Your task to perform on an android device: Go to internet settings Image 0: 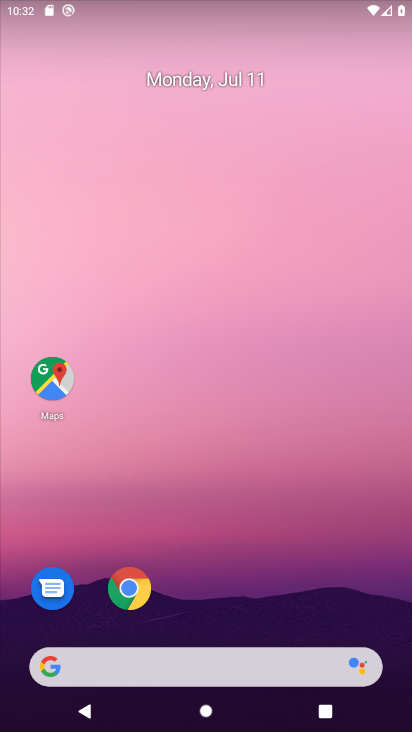
Step 0: drag from (274, 614) to (244, 185)
Your task to perform on an android device: Go to internet settings Image 1: 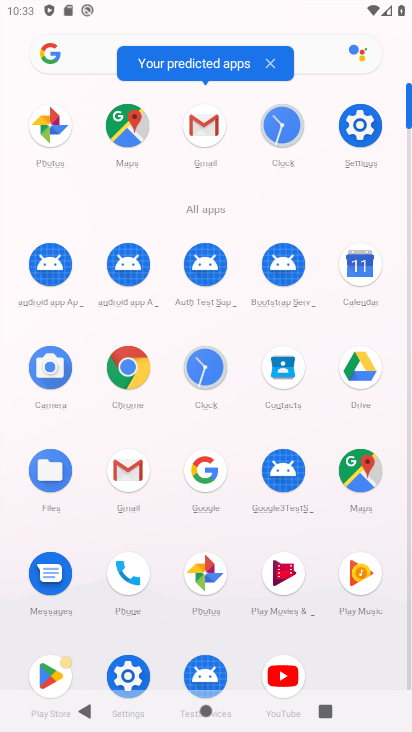
Step 1: click (355, 140)
Your task to perform on an android device: Go to internet settings Image 2: 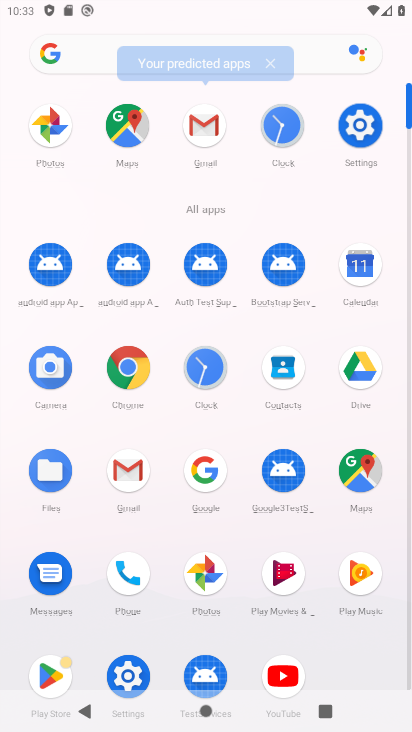
Step 2: click (354, 122)
Your task to perform on an android device: Go to internet settings Image 3: 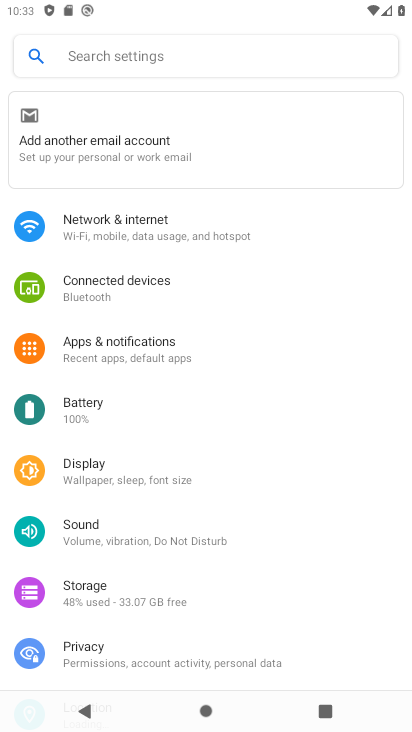
Step 3: click (210, 230)
Your task to perform on an android device: Go to internet settings Image 4: 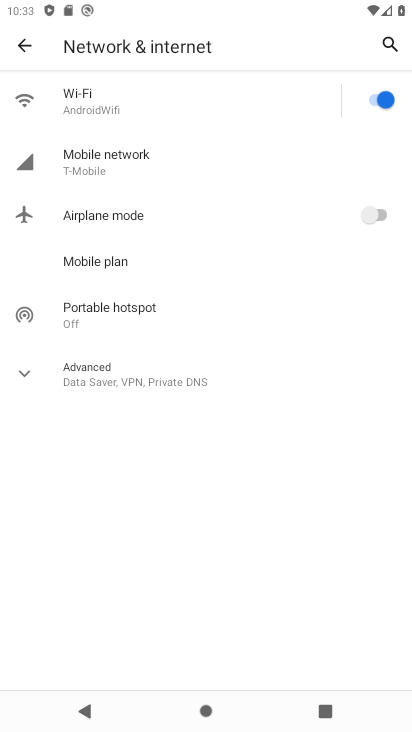
Step 4: task complete